Your task to perform on an android device: Go to Android settings Image 0: 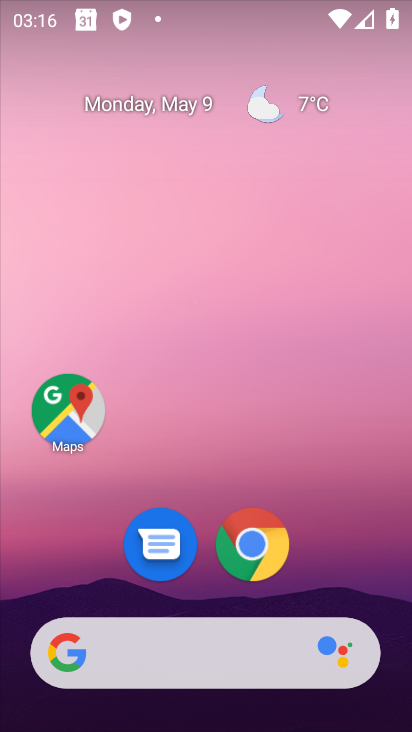
Step 0: drag from (114, 604) to (146, 384)
Your task to perform on an android device: Go to Android settings Image 1: 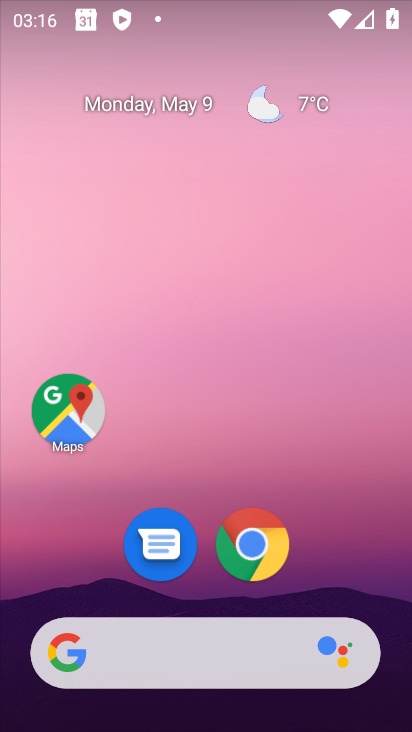
Step 1: drag from (329, 576) to (372, 186)
Your task to perform on an android device: Go to Android settings Image 2: 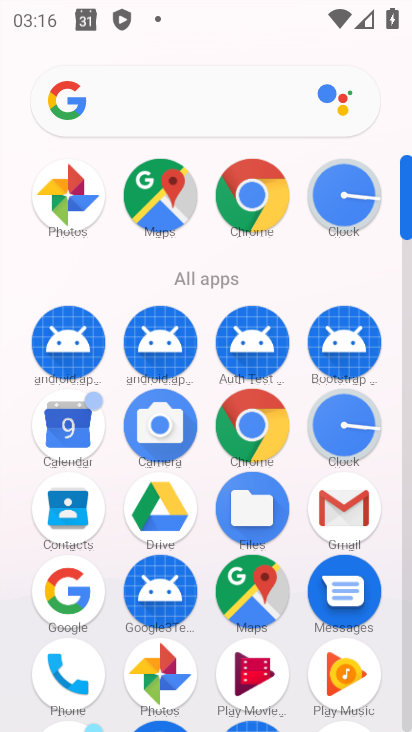
Step 2: drag from (221, 616) to (241, 525)
Your task to perform on an android device: Go to Android settings Image 3: 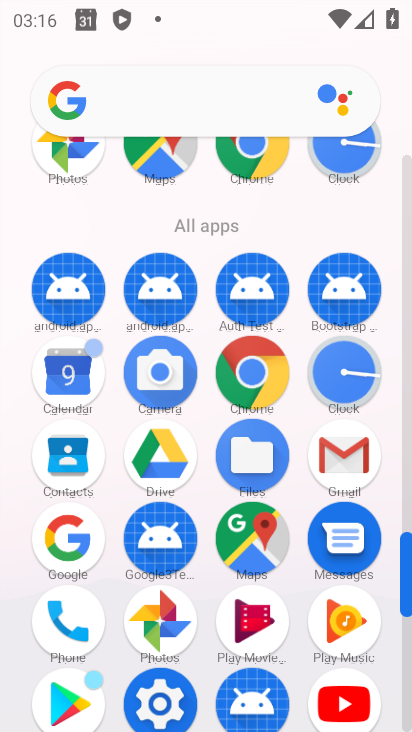
Step 3: click (168, 706)
Your task to perform on an android device: Go to Android settings Image 4: 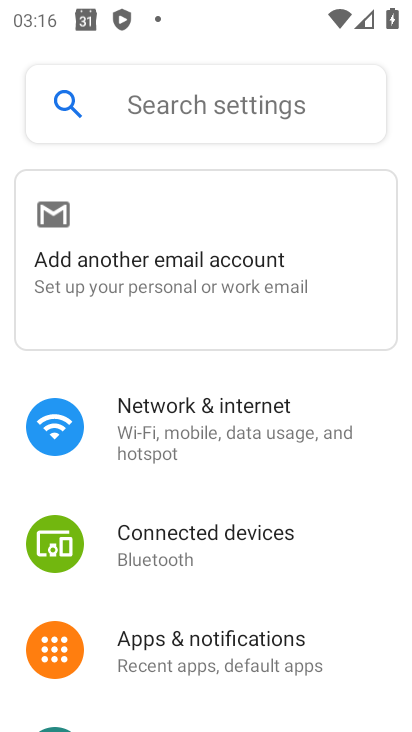
Step 4: task complete